Your task to perform on an android device: Open Google Chrome and open the bookmarks view Image 0: 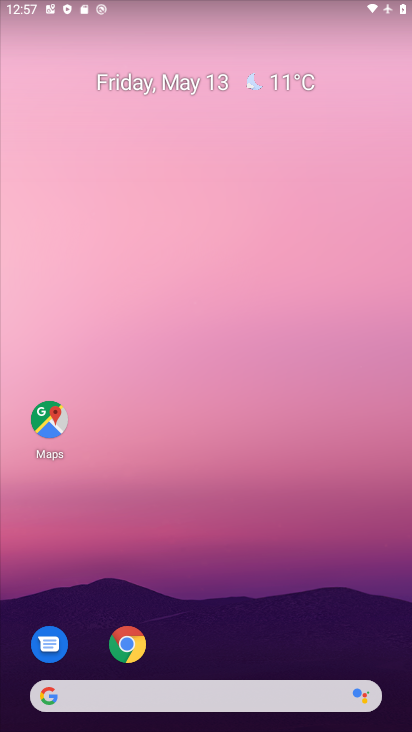
Step 0: click (125, 647)
Your task to perform on an android device: Open Google Chrome and open the bookmarks view Image 1: 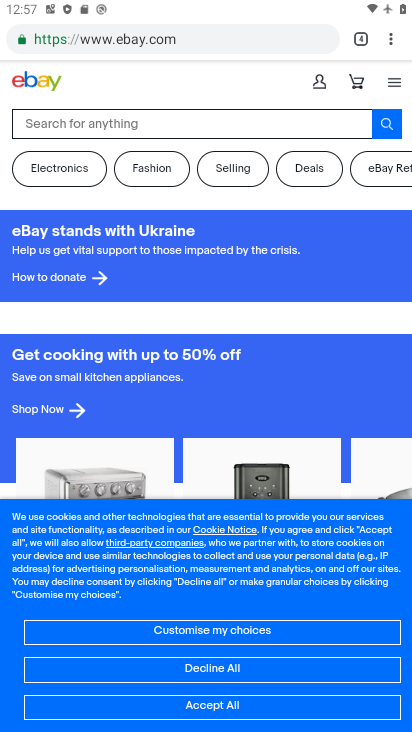
Step 1: click (391, 42)
Your task to perform on an android device: Open Google Chrome and open the bookmarks view Image 2: 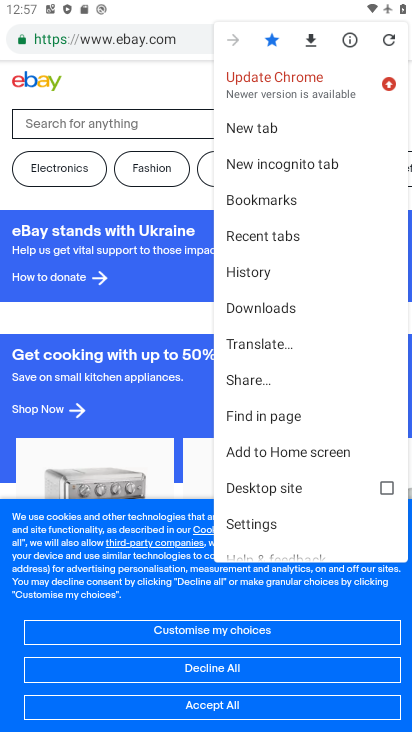
Step 2: click (283, 200)
Your task to perform on an android device: Open Google Chrome and open the bookmarks view Image 3: 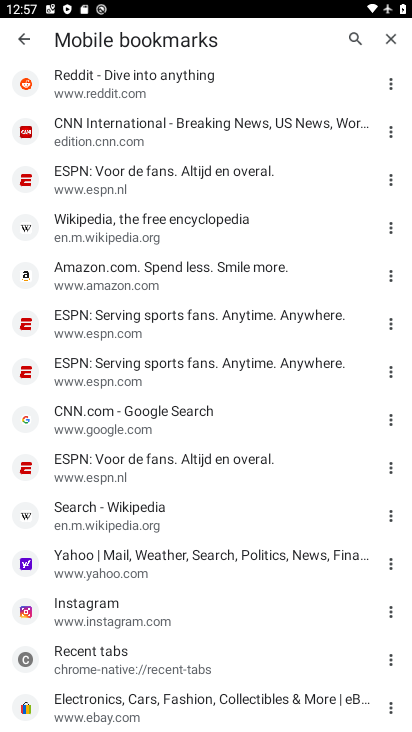
Step 3: task complete